Your task to perform on an android device: Open Chrome and go to settings Image 0: 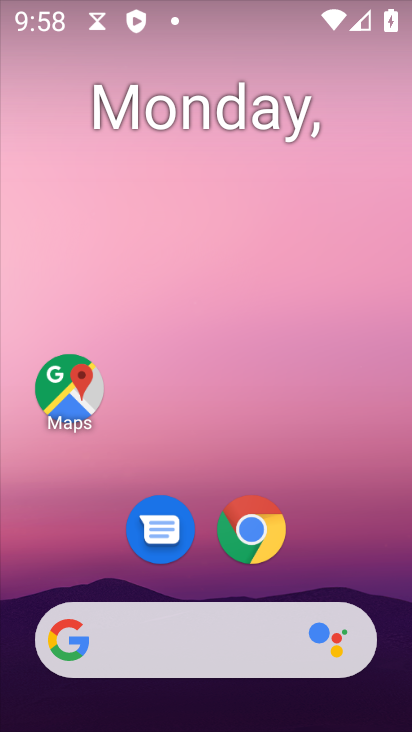
Step 0: click (250, 531)
Your task to perform on an android device: Open Chrome and go to settings Image 1: 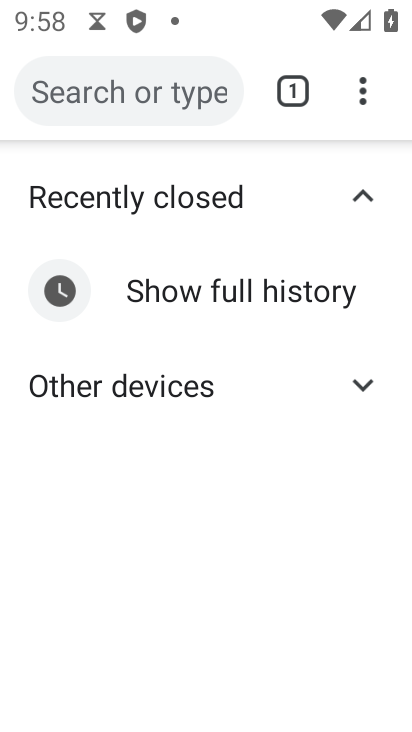
Step 1: click (362, 86)
Your task to perform on an android device: Open Chrome and go to settings Image 2: 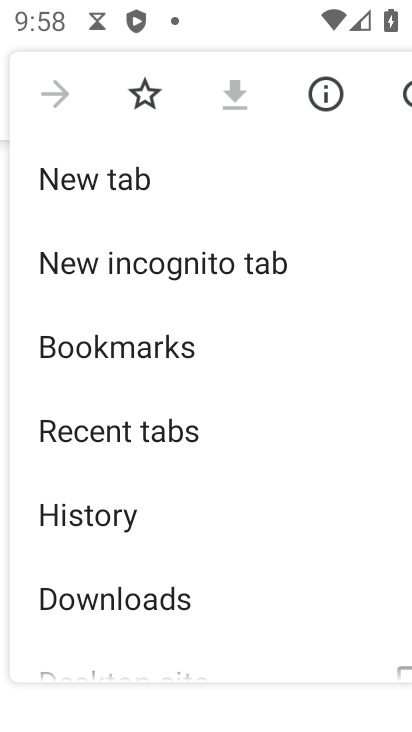
Step 2: drag from (153, 536) to (223, 439)
Your task to perform on an android device: Open Chrome and go to settings Image 3: 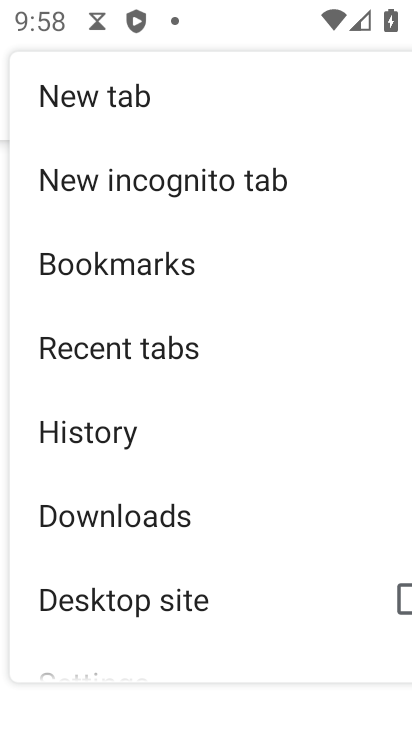
Step 3: drag from (173, 566) to (221, 480)
Your task to perform on an android device: Open Chrome and go to settings Image 4: 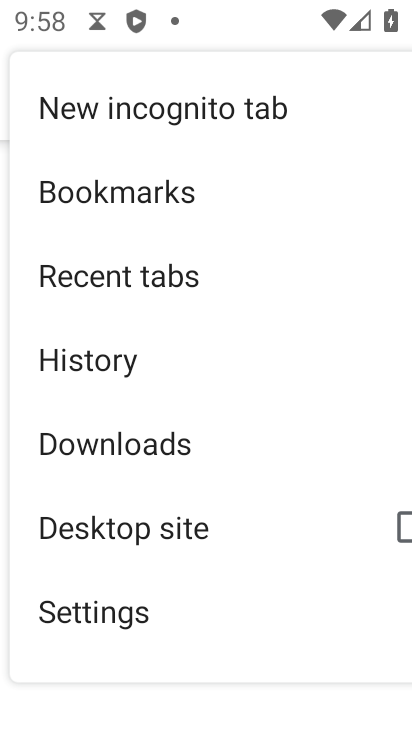
Step 4: drag from (137, 572) to (195, 468)
Your task to perform on an android device: Open Chrome and go to settings Image 5: 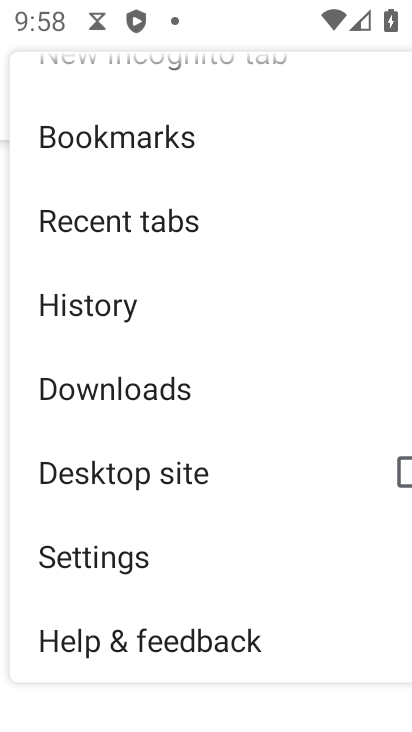
Step 5: click (122, 563)
Your task to perform on an android device: Open Chrome and go to settings Image 6: 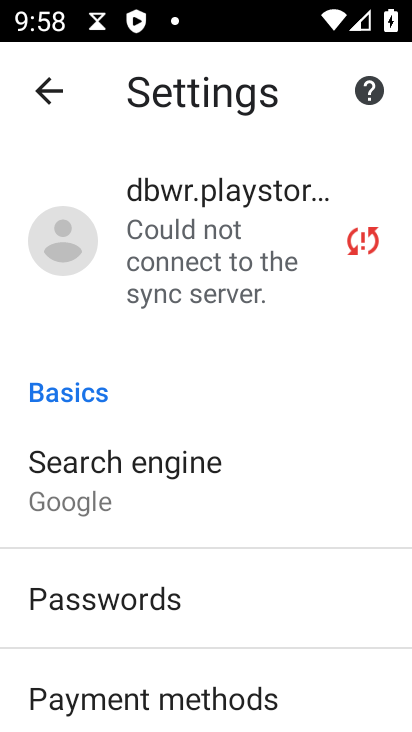
Step 6: task complete